Your task to perform on an android device: Open settings Image 0: 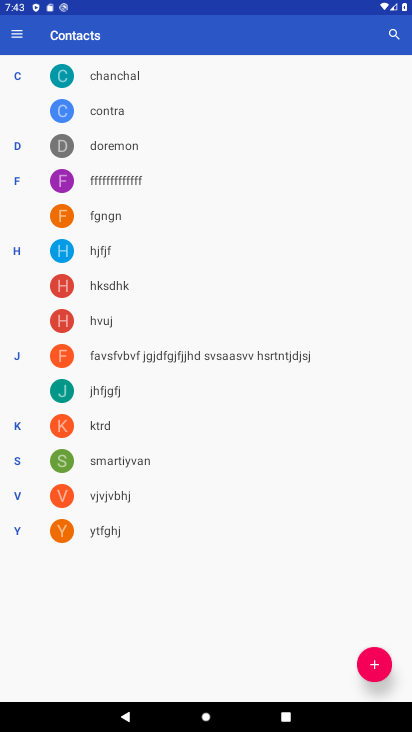
Step 0: press home button
Your task to perform on an android device: Open settings Image 1: 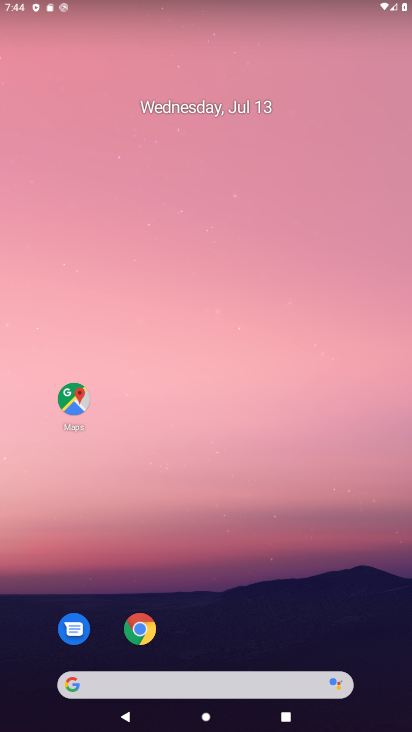
Step 1: drag from (274, 606) to (257, 40)
Your task to perform on an android device: Open settings Image 2: 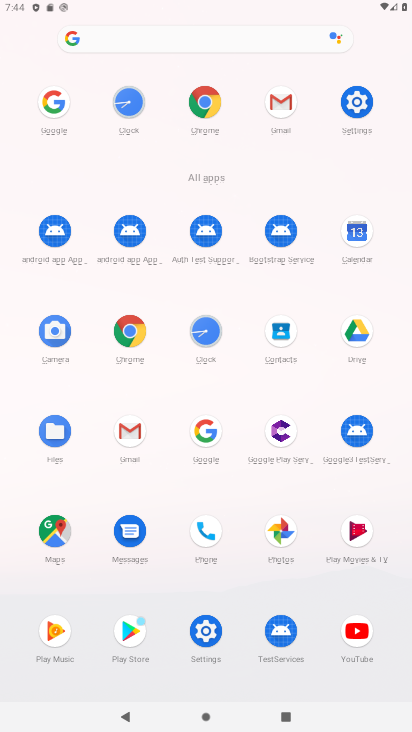
Step 2: click (349, 108)
Your task to perform on an android device: Open settings Image 3: 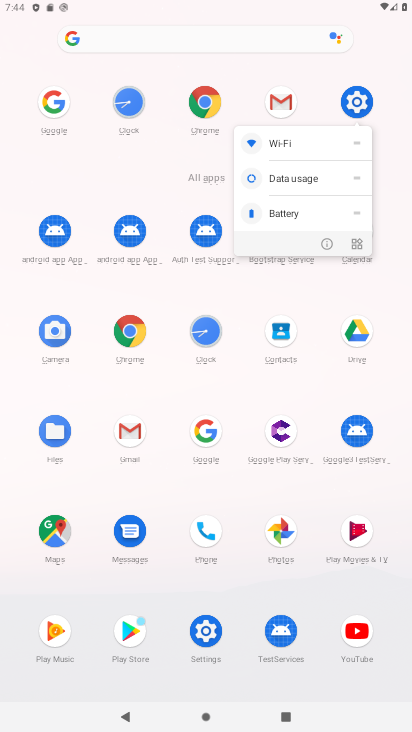
Step 3: click (357, 102)
Your task to perform on an android device: Open settings Image 4: 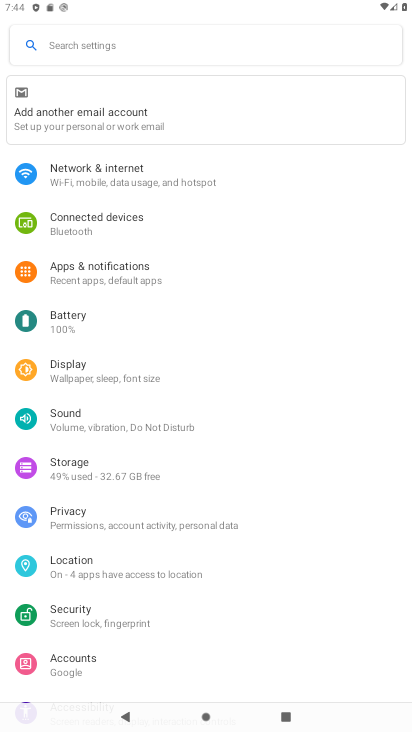
Step 4: task complete